Your task to perform on an android device: check battery use Image 0: 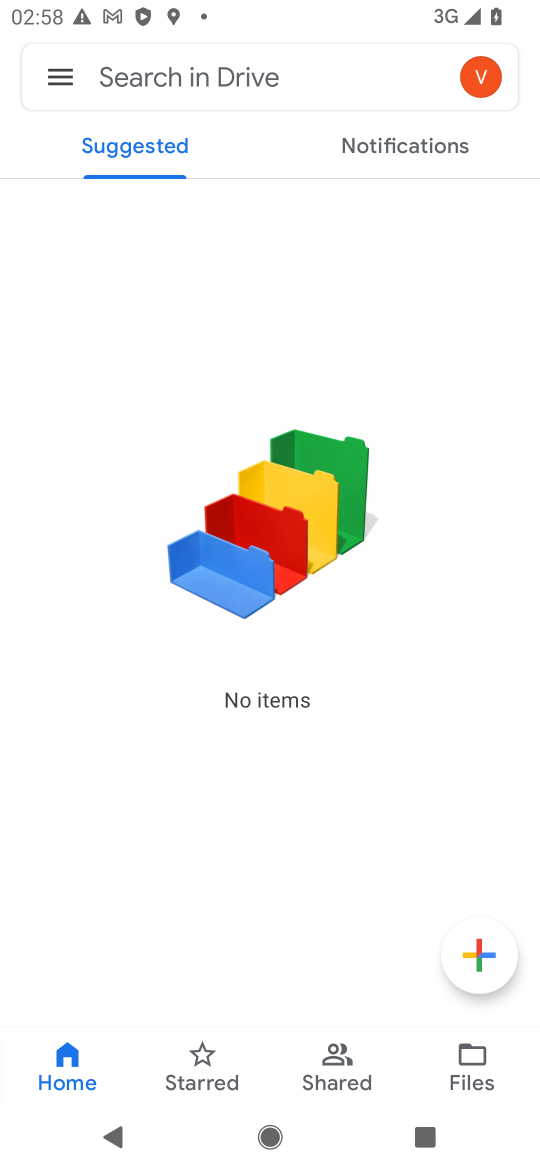
Step 0: press home button
Your task to perform on an android device: check battery use Image 1: 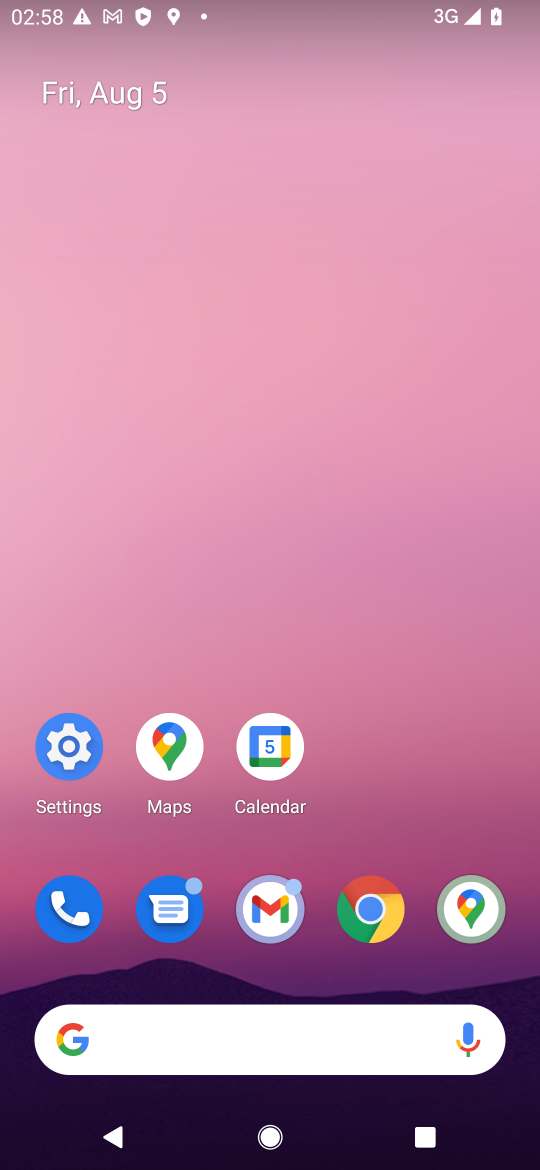
Step 1: click (66, 746)
Your task to perform on an android device: check battery use Image 2: 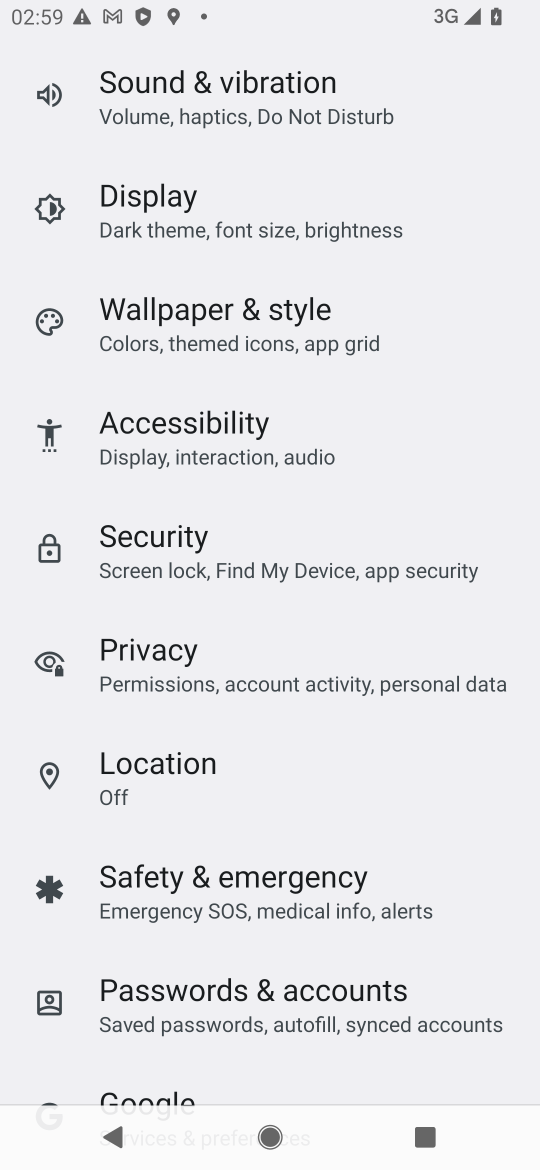
Step 2: drag from (419, 163) to (418, 567)
Your task to perform on an android device: check battery use Image 3: 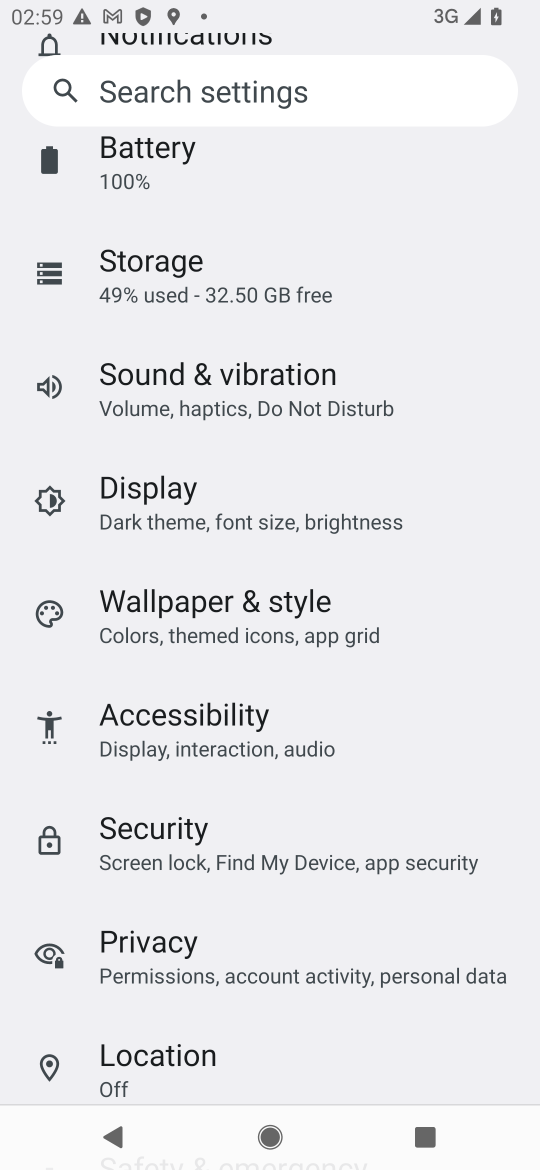
Step 3: click (132, 161)
Your task to perform on an android device: check battery use Image 4: 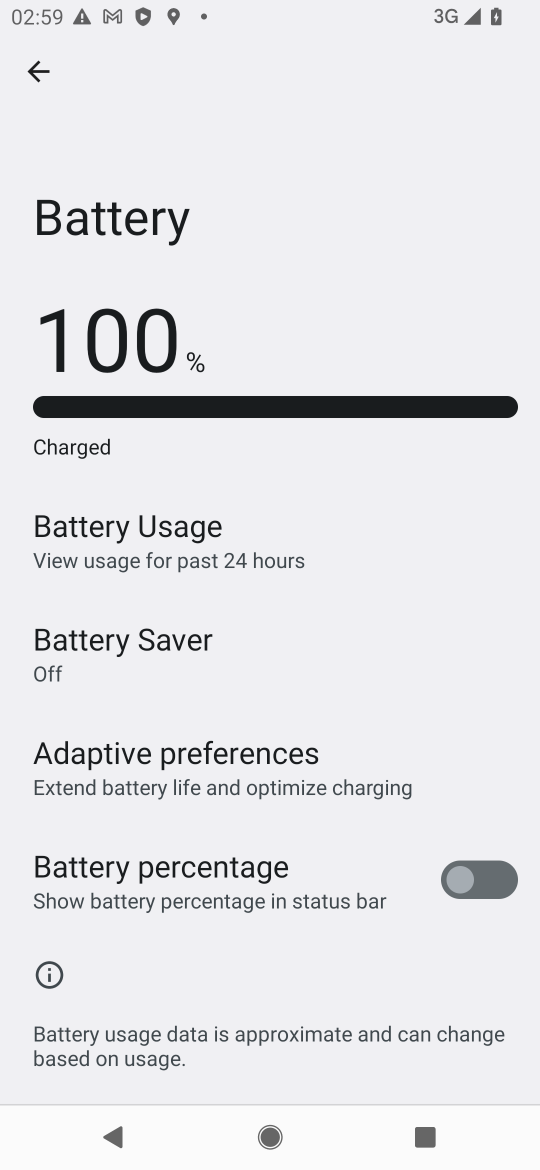
Step 4: task complete